Your task to perform on an android device: Open Google Maps Image 0: 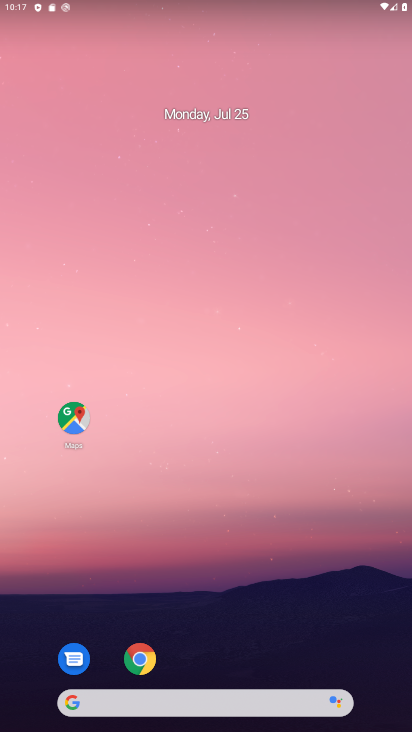
Step 0: drag from (215, 642) to (186, 155)
Your task to perform on an android device: Open Google Maps Image 1: 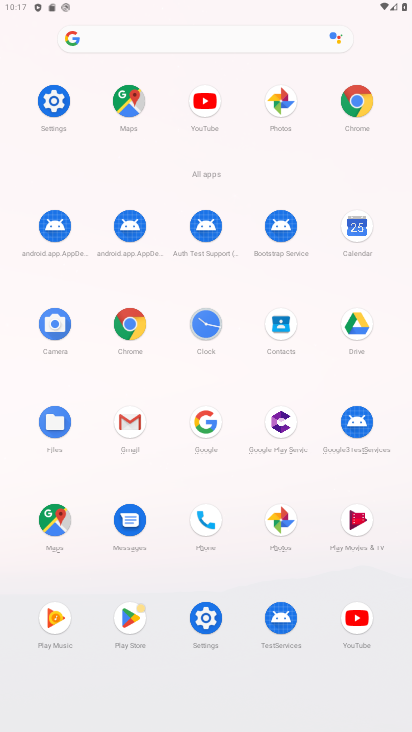
Step 1: click (60, 519)
Your task to perform on an android device: Open Google Maps Image 2: 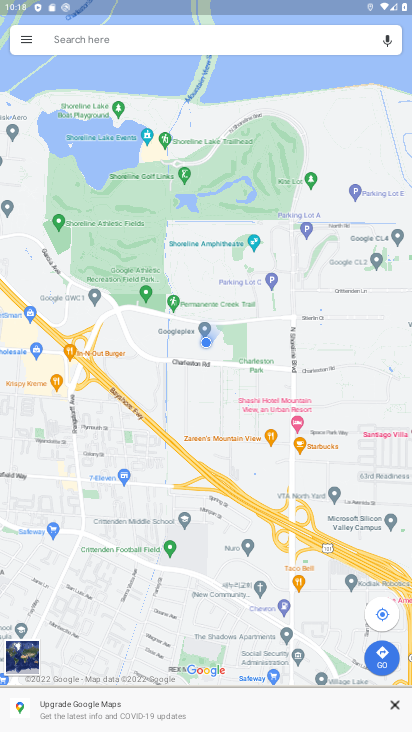
Step 2: task complete